Your task to perform on an android device: Go to accessibility settings Image 0: 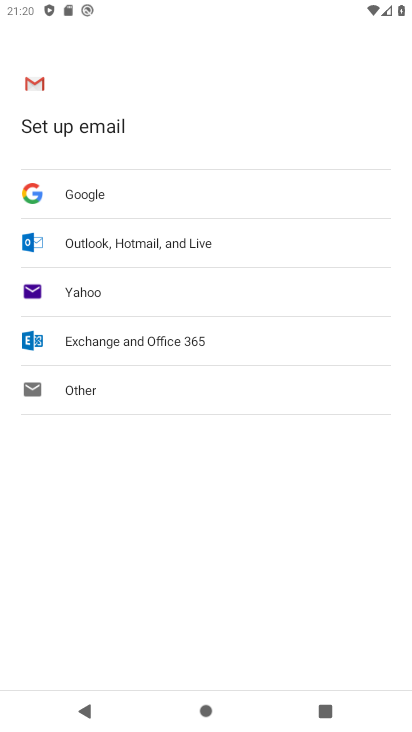
Step 0: press back button
Your task to perform on an android device: Go to accessibility settings Image 1: 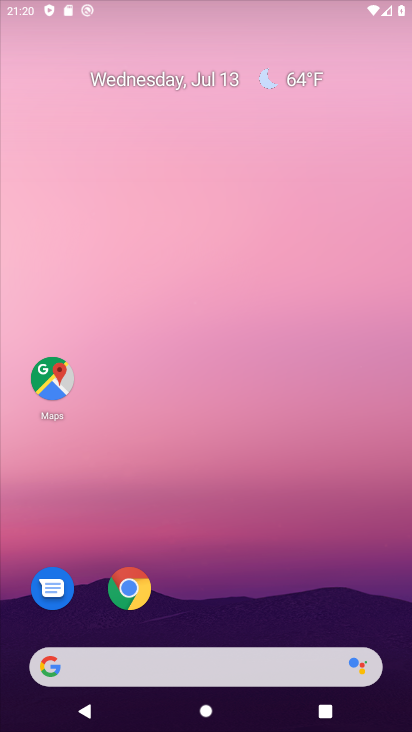
Step 1: drag from (262, 233) to (284, 16)
Your task to perform on an android device: Go to accessibility settings Image 2: 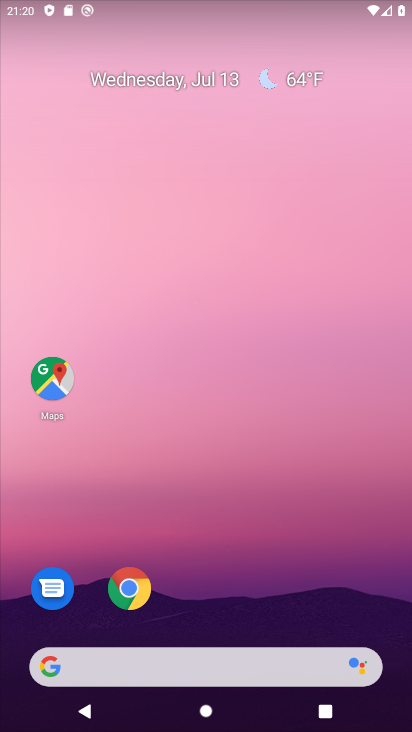
Step 2: drag from (240, 514) to (311, 7)
Your task to perform on an android device: Go to accessibility settings Image 3: 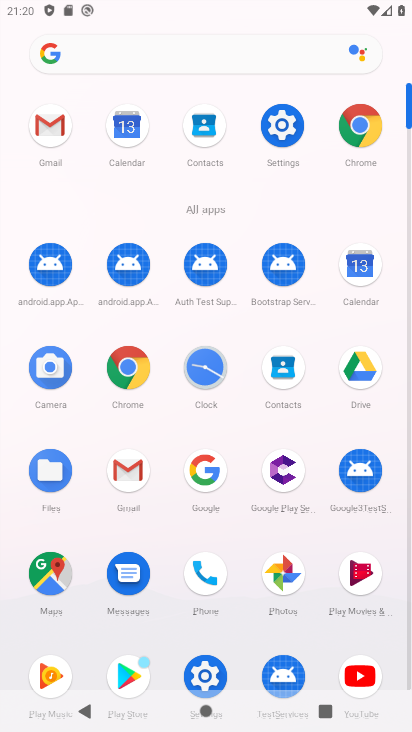
Step 3: click (295, 130)
Your task to perform on an android device: Go to accessibility settings Image 4: 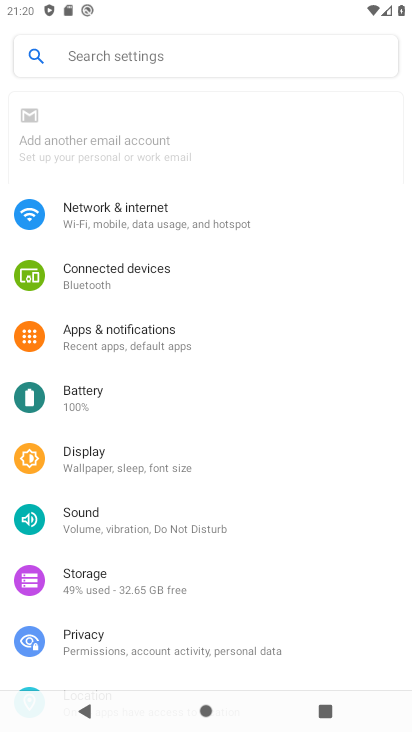
Step 4: drag from (169, 599) to (299, 1)
Your task to perform on an android device: Go to accessibility settings Image 5: 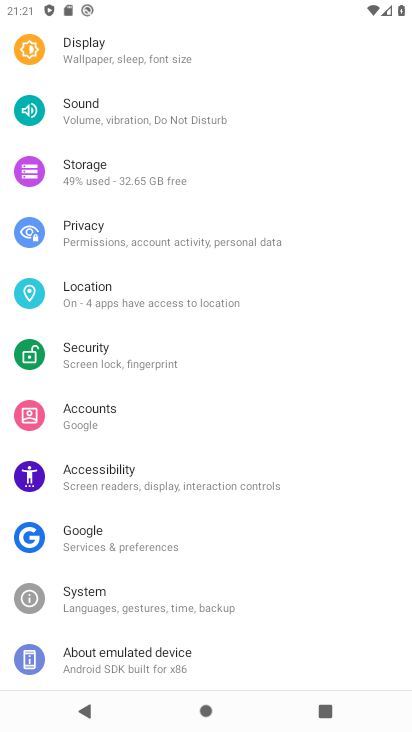
Step 5: click (121, 471)
Your task to perform on an android device: Go to accessibility settings Image 6: 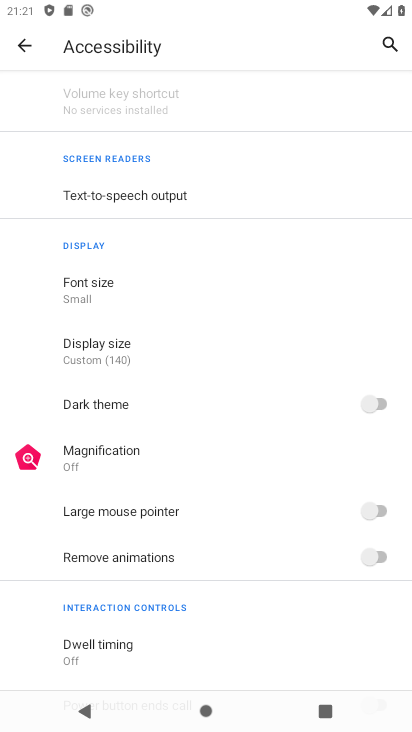
Step 6: task complete